Your task to perform on an android device: uninstall "Contacts" Image 0: 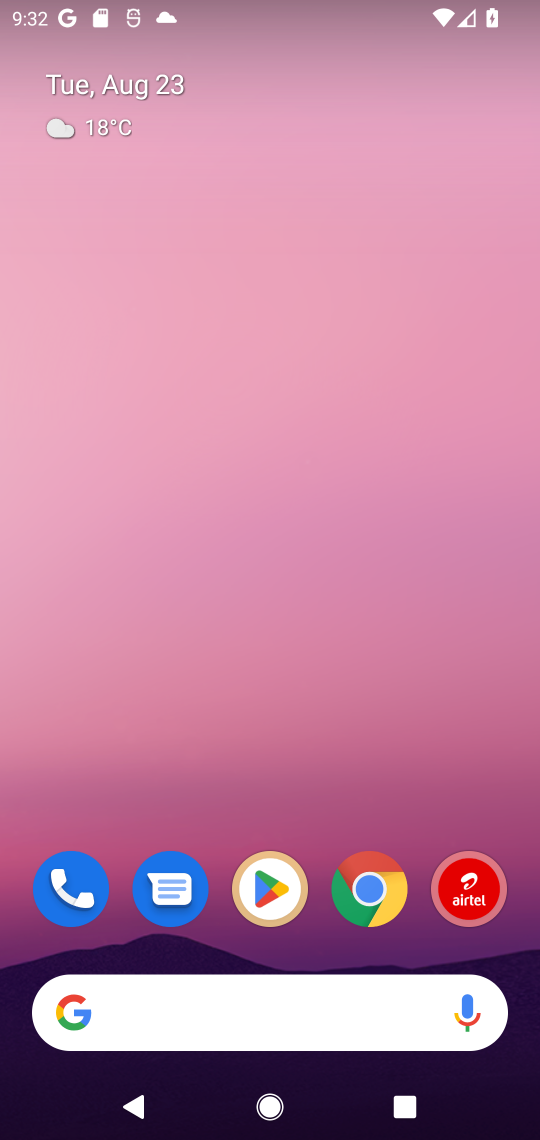
Step 0: click (258, 910)
Your task to perform on an android device: uninstall "Contacts" Image 1: 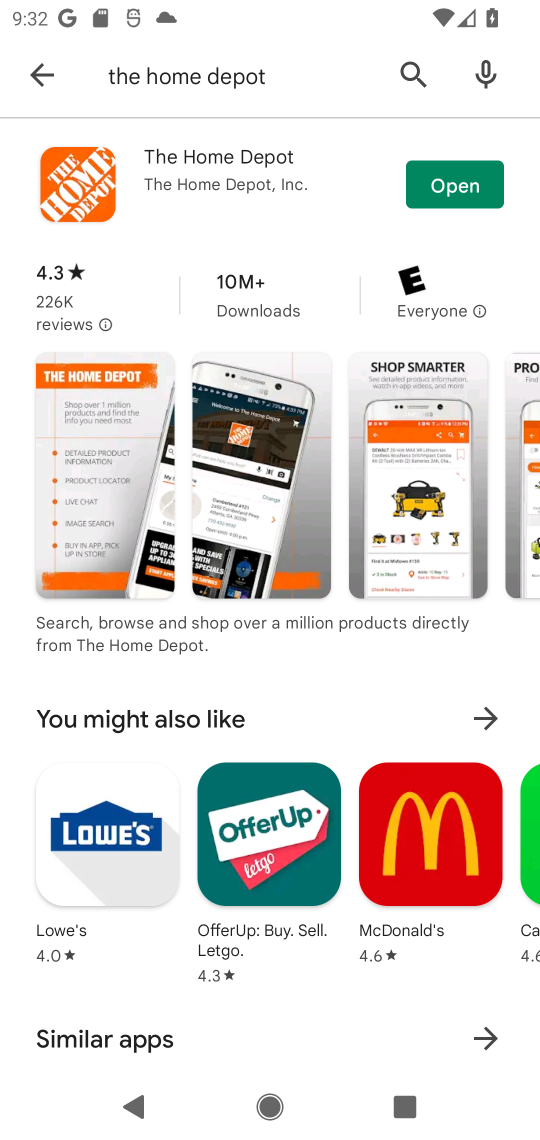
Step 1: click (44, 94)
Your task to perform on an android device: uninstall "Contacts" Image 2: 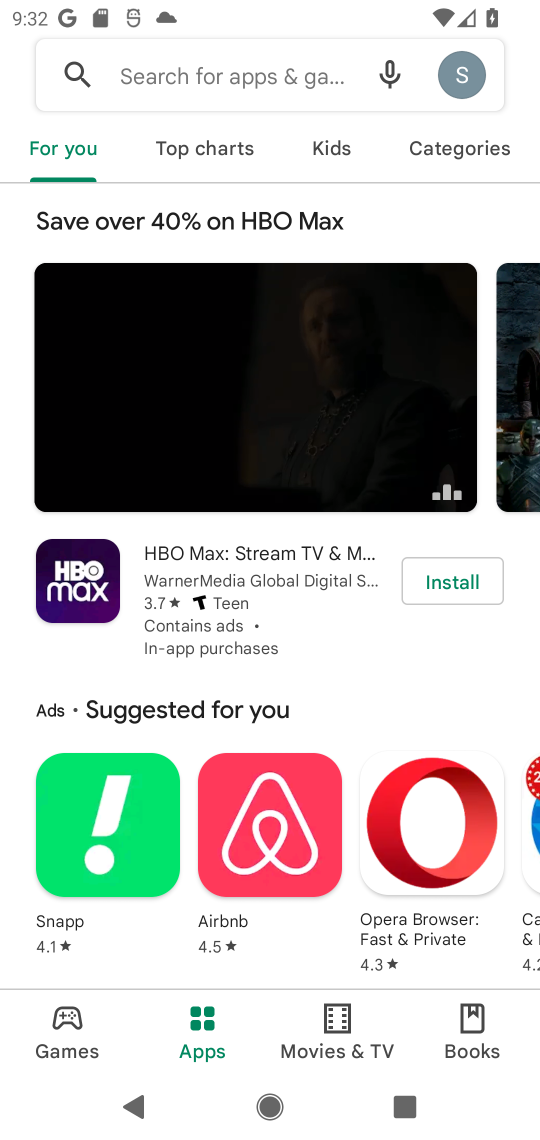
Step 2: click (214, 74)
Your task to perform on an android device: uninstall "Contacts" Image 3: 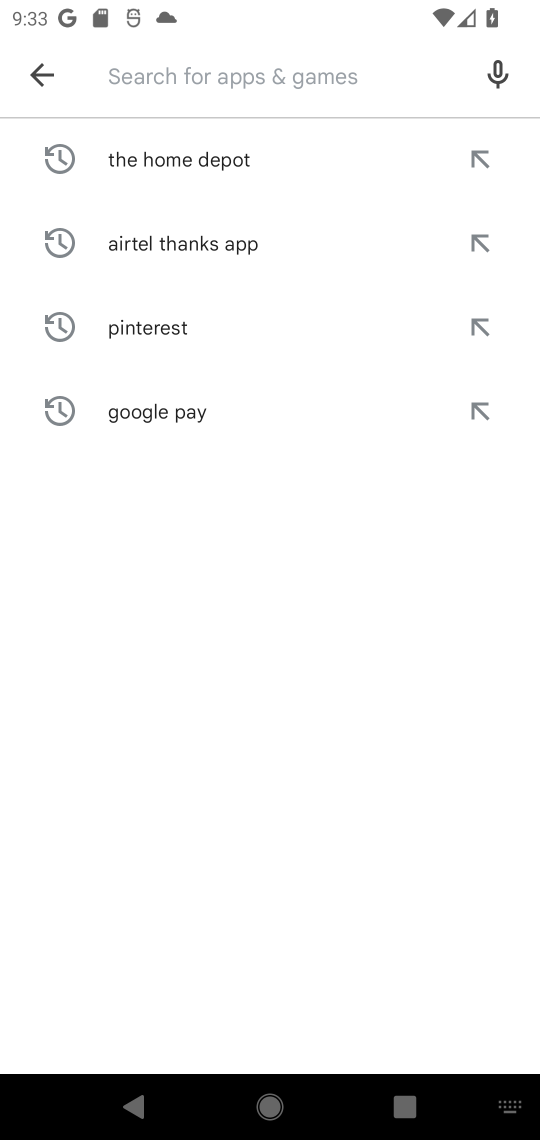
Step 3: type "Contacts"
Your task to perform on an android device: uninstall "Contacts" Image 4: 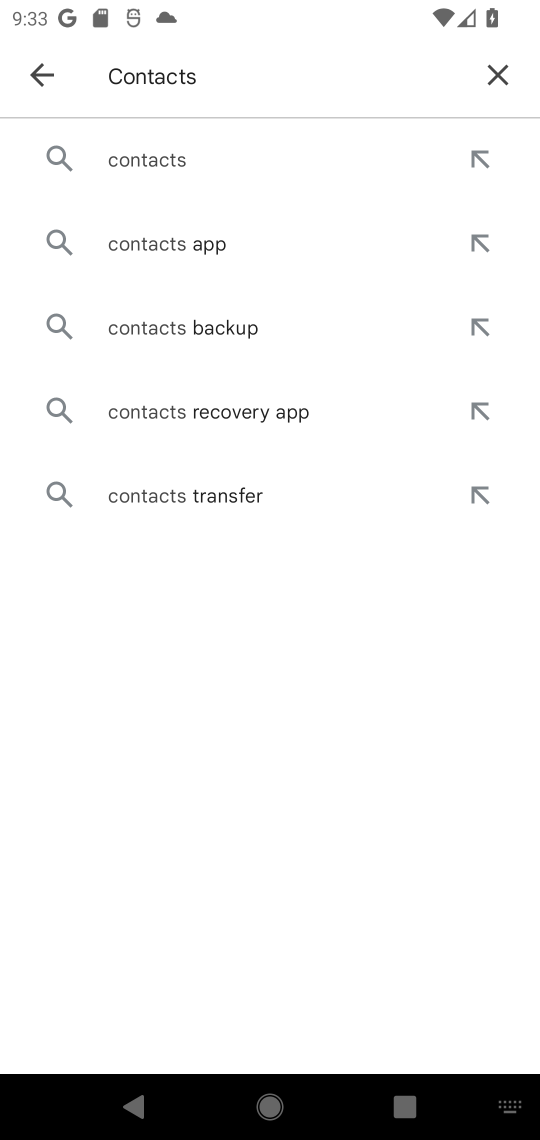
Step 4: click (127, 156)
Your task to perform on an android device: uninstall "Contacts" Image 5: 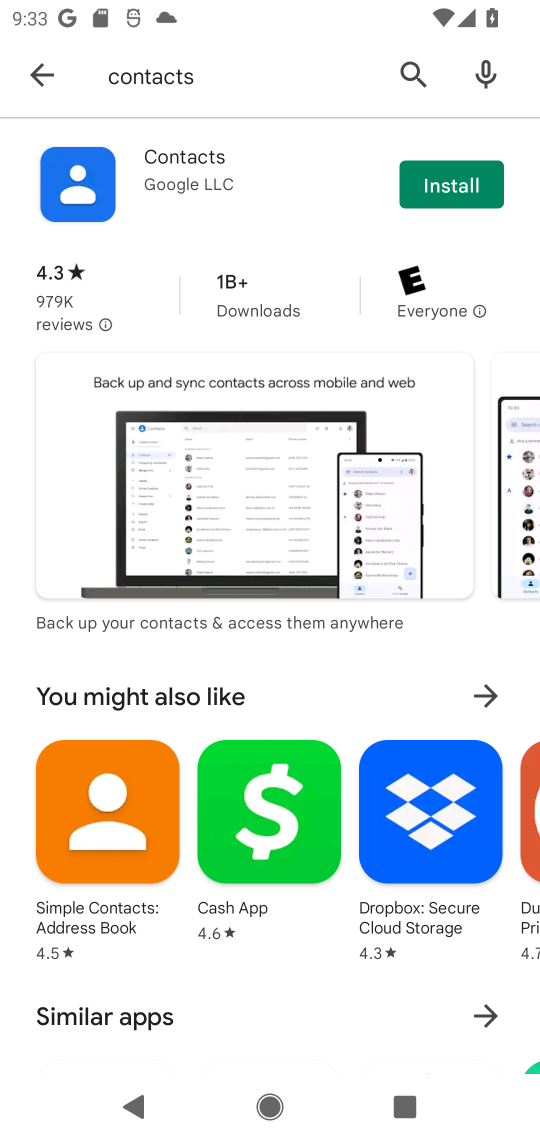
Step 5: task complete